Your task to perform on an android device: allow notifications from all sites in the chrome app Image 0: 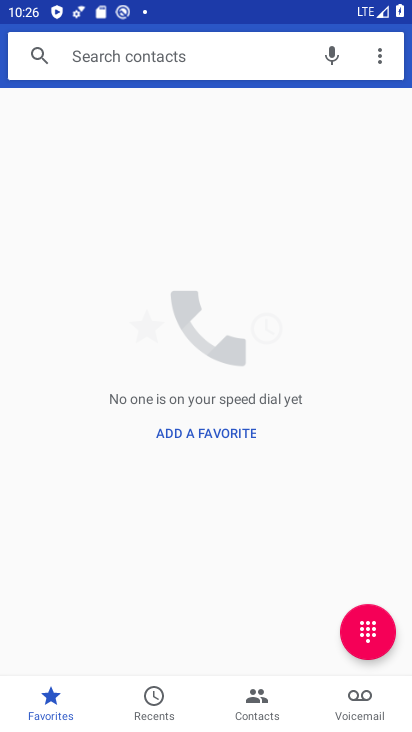
Step 0: press home button
Your task to perform on an android device: allow notifications from all sites in the chrome app Image 1: 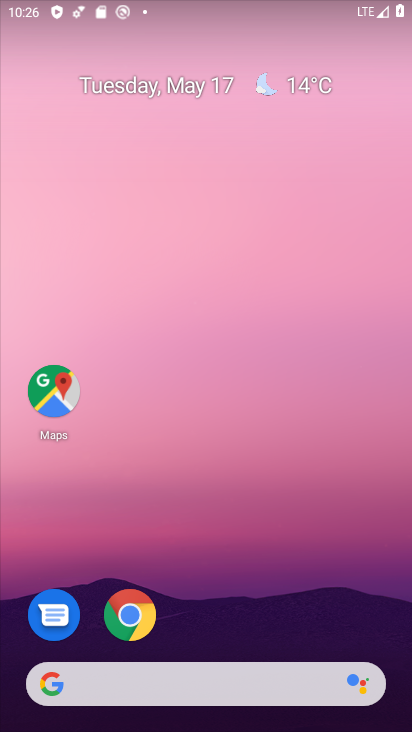
Step 1: click (129, 619)
Your task to perform on an android device: allow notifications from all sites in the chrome app Image 2: 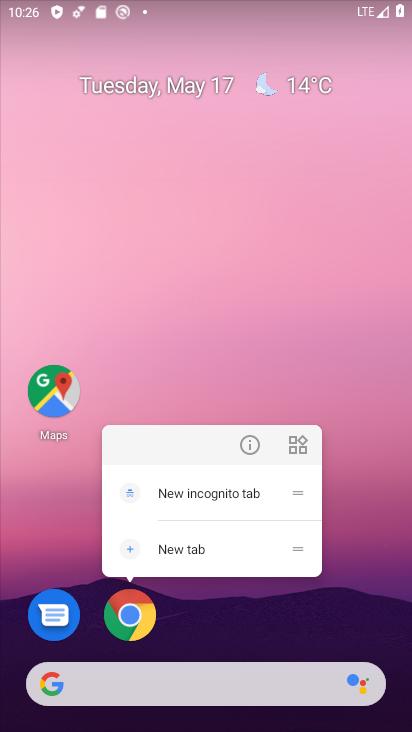
Step 2: click (146, 614)
Your task to perform on an android device: allow notifications from all sites in the chrome app Image 3: 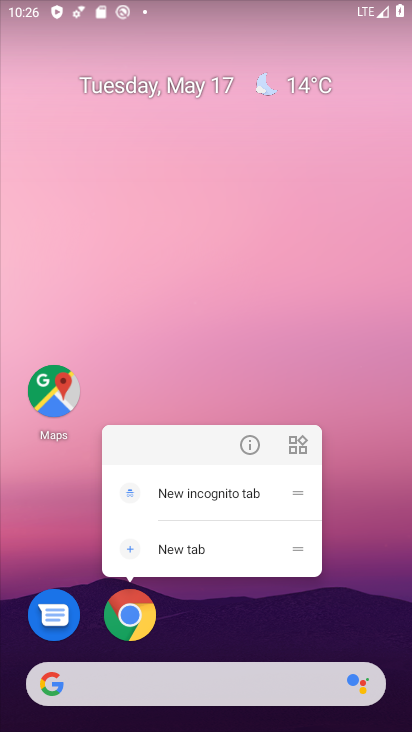
Step 3: click (144, 614)
Your task to perform on an android device: allow notifications from all sites in the chrome app Image 4: 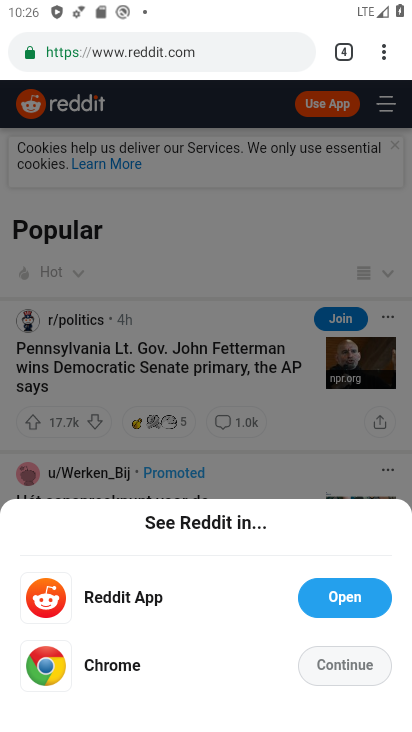
Step 4: drag from (385, 53) to (202, 637)
Your task to perform on an android device: allow notifications from all sites in the chrome app Image 5: 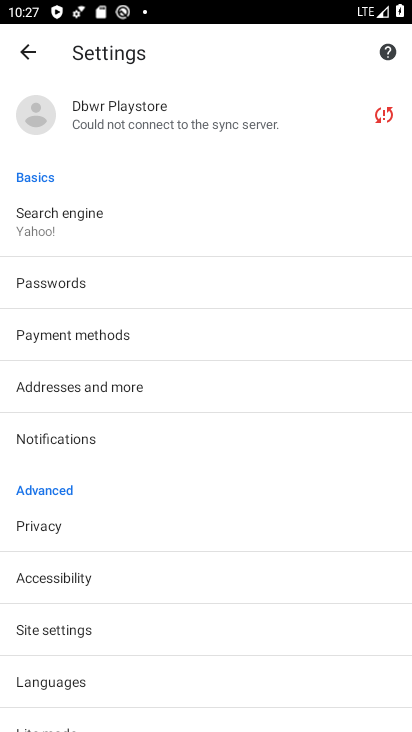
Step 5: drag from (242, 586) to (275, 284)
Your task to perform on an android device: allow notifications from all sites in the chrome app Image 6: 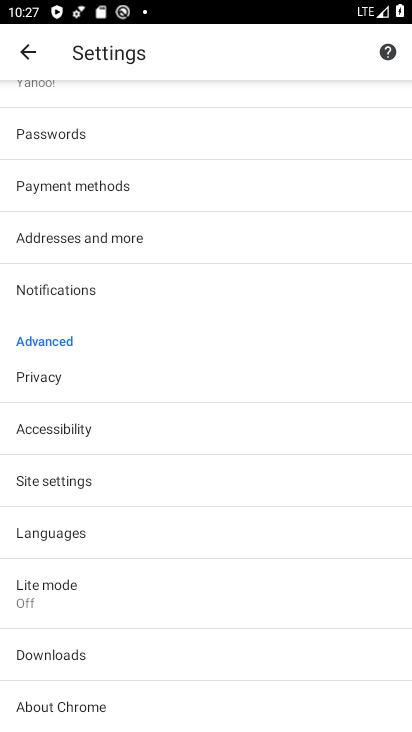
Step 6: click (89, 481)
Your task to perform on an android device: allow notifications from all sites in the chrome app Image 7: 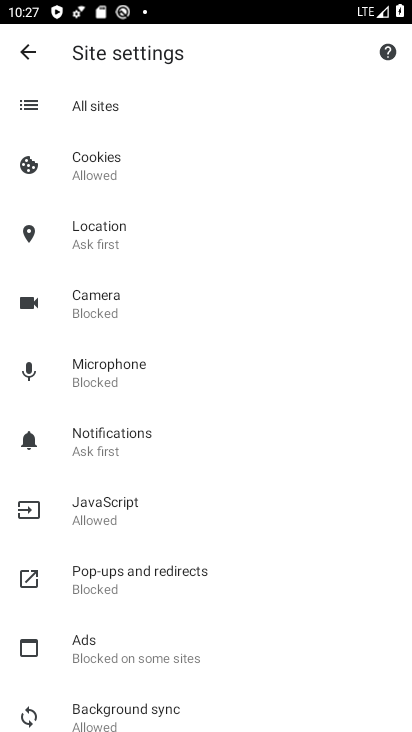
Step 7: click (119, 439)
Your task to perform on an android device: allow notifications from all sites in the chrome app Image 8: 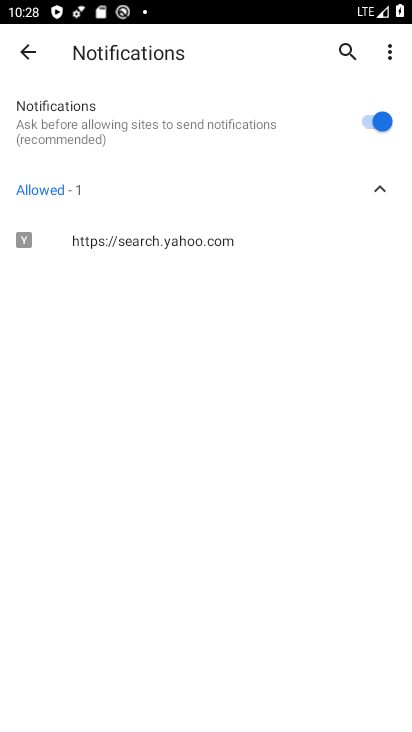
Step 8: task complete